Your task to perform on an android device: change alarm snooze length Image 0: 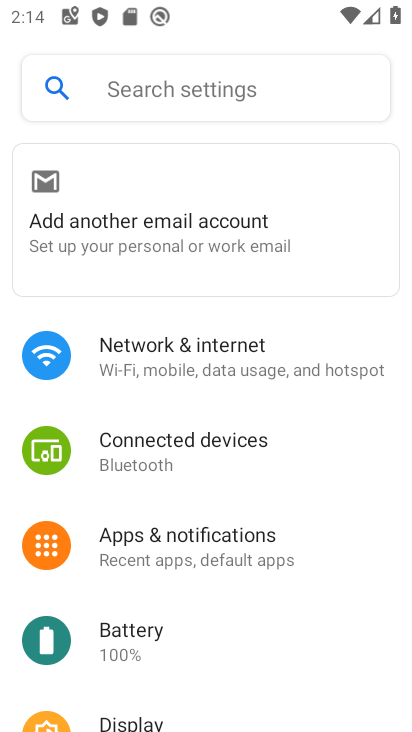
Step 0: press home button
Your task to perform on an android device: change alarm snooze length Image 1: 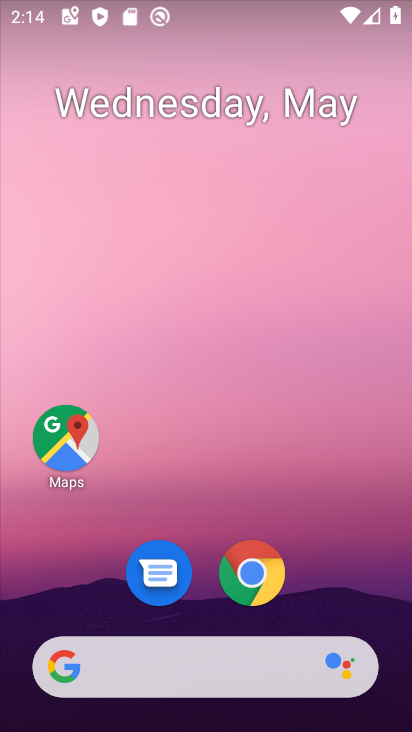
Step 1: drag from (335, 611) to (370, 69)
Your task to perform on an android device: change alarm snooze length Image 2: 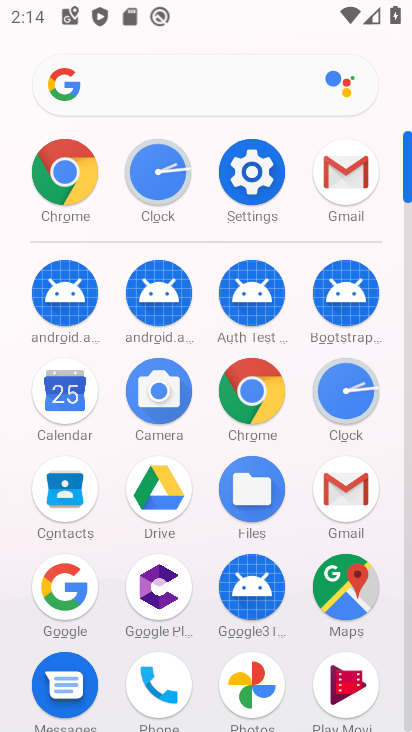
Step 2: click (351, 399)
Your task to perform on an android device: change alarm snooze length Image 3: 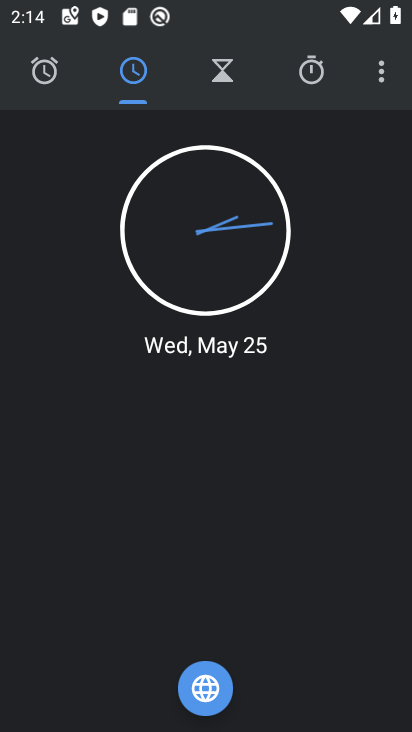
Step 3: click (382, 72)
Your task to perform on an android device: change alarm snooze length Image 4: 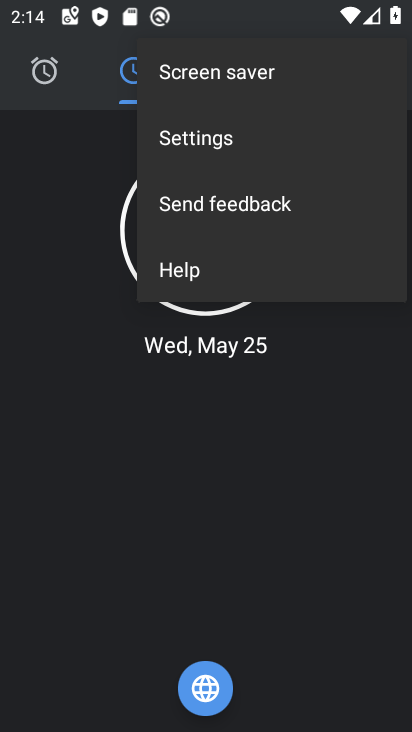
Step 4: click (213, 135)
Your task to perform on an android device: change alarm snooze length Image 5: 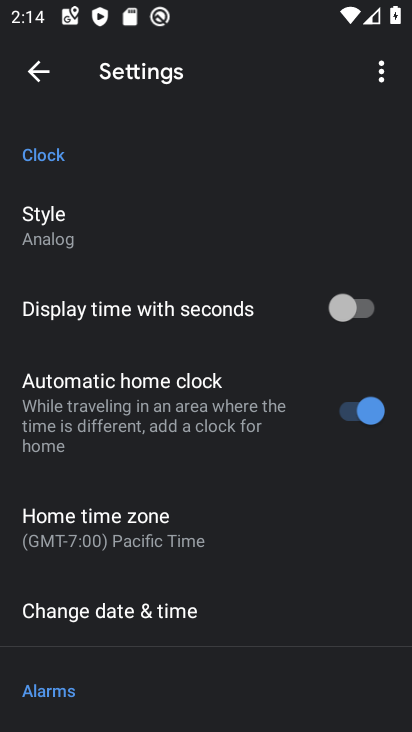
Step 5: drag from (229, 630) to (261, 157)
Your task to perform on an android device: change alarm snooze length Image 6: 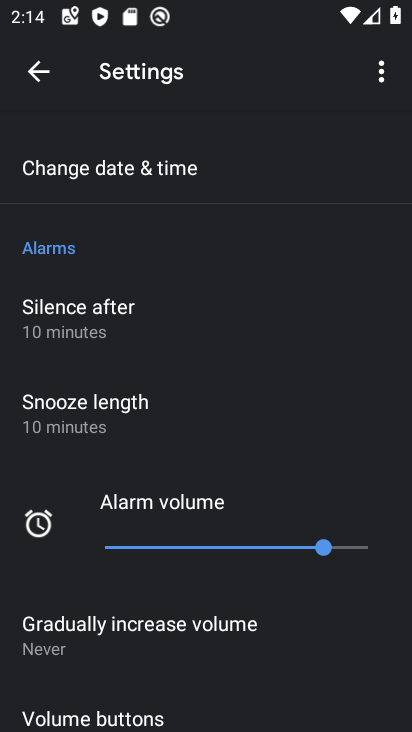
Step 6: drag from (171, 587) to (215, 195)
Your task to perform on an android device: change alarm snooze length Image 7: 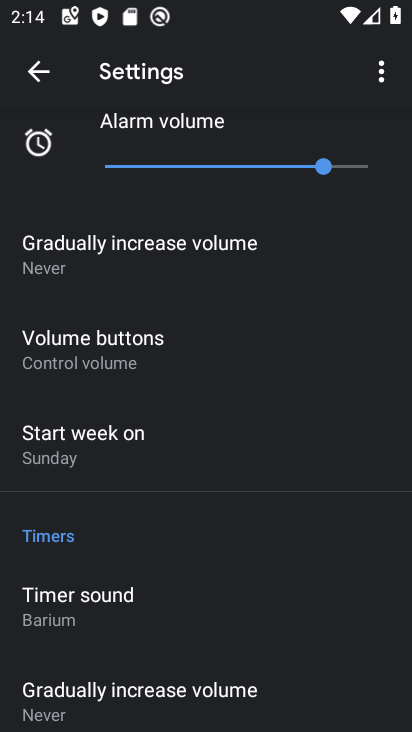
Step 7: drag from (276, 236) to (301, 643)
Your task to perform on an android device: change alarm snooze length Image 8: 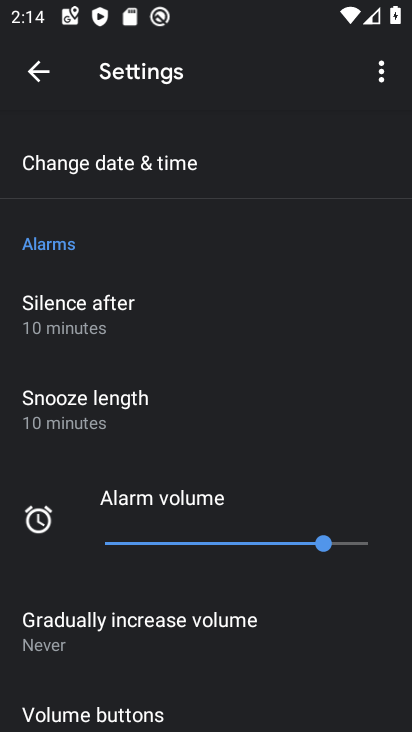
Step 8: click (150, 416)
Your task to perform on an android device: change alarm snooze length Image 9: 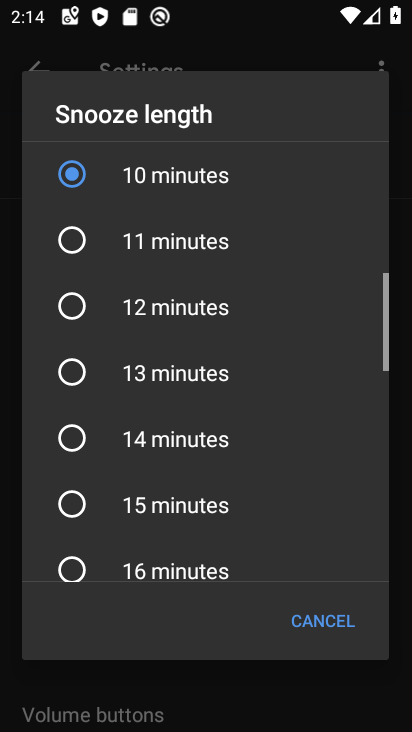
Step 9: click (172, 280)
Your task to perform on an android device: change alarm snooze length Image 10: 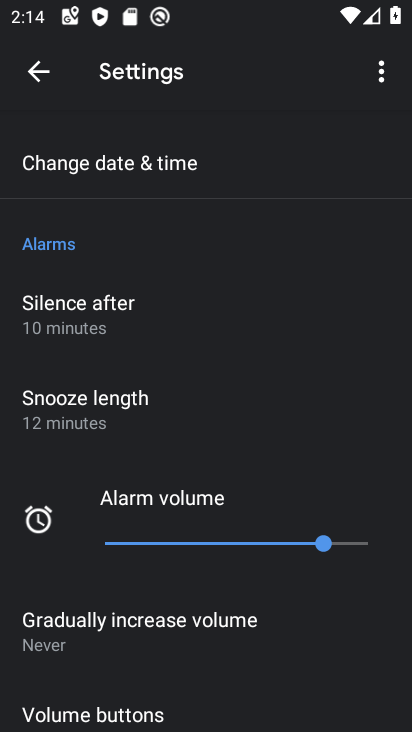
Step 10: task complete